Your task to perform on an android device: Clear the shopping cart on ebay.com. Search for razer deathadder on ebay.com, select the first entry, and add it to the cart. Image 0: 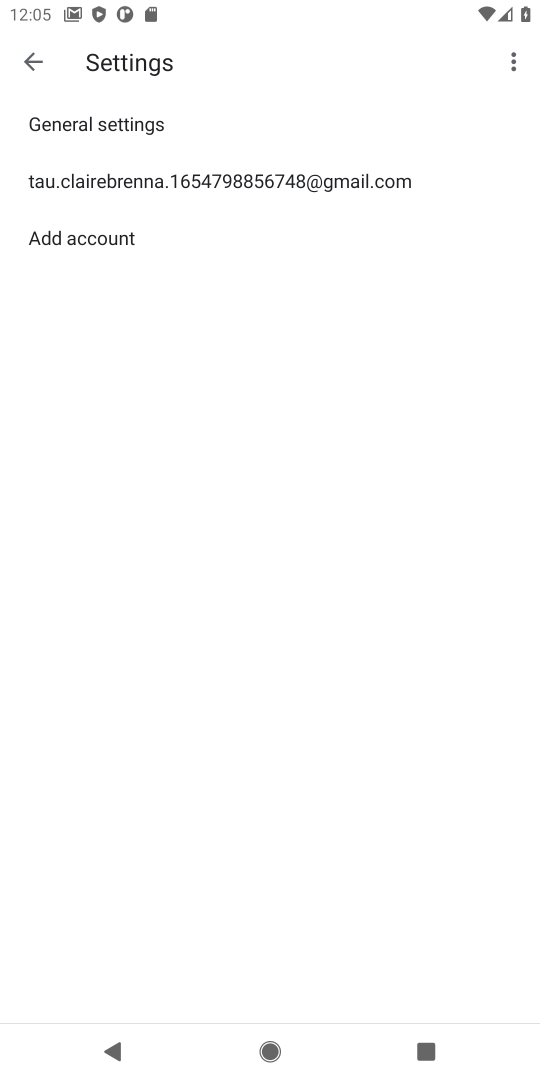
Step 0: press home button
Your task to perform on an android device: Clear the shopping cart on ebay.com. Search for razer deathadder on ebay.com, select the first entry, and add it to the cart. Image 1: 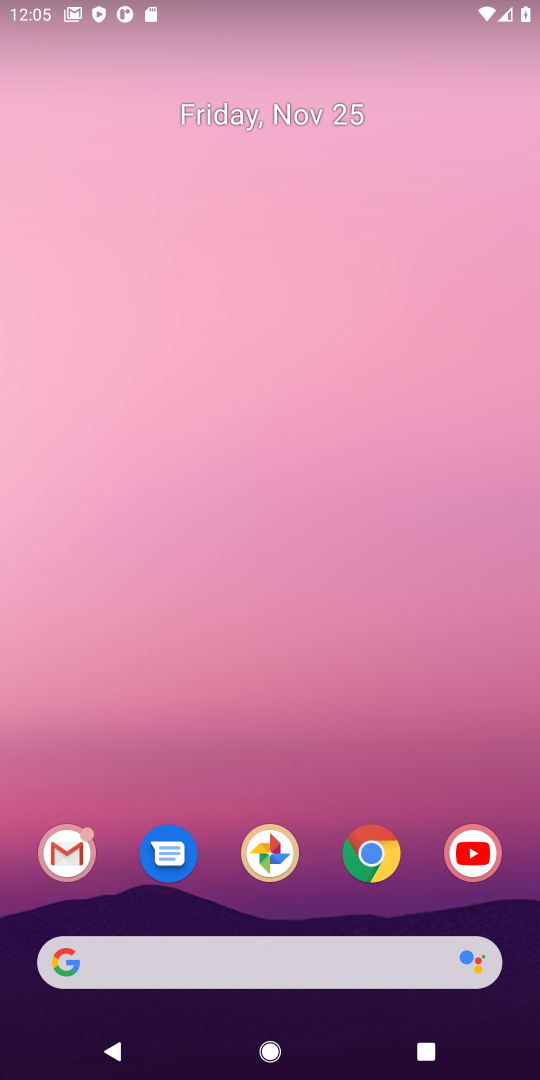
Step 1: click (333, 950)
Your task to perform on an android device: Clear the shopping cart on ebay.com. Search for razer deathadder on ebay.com, select the first entry, and add it to the cart. Image 2: 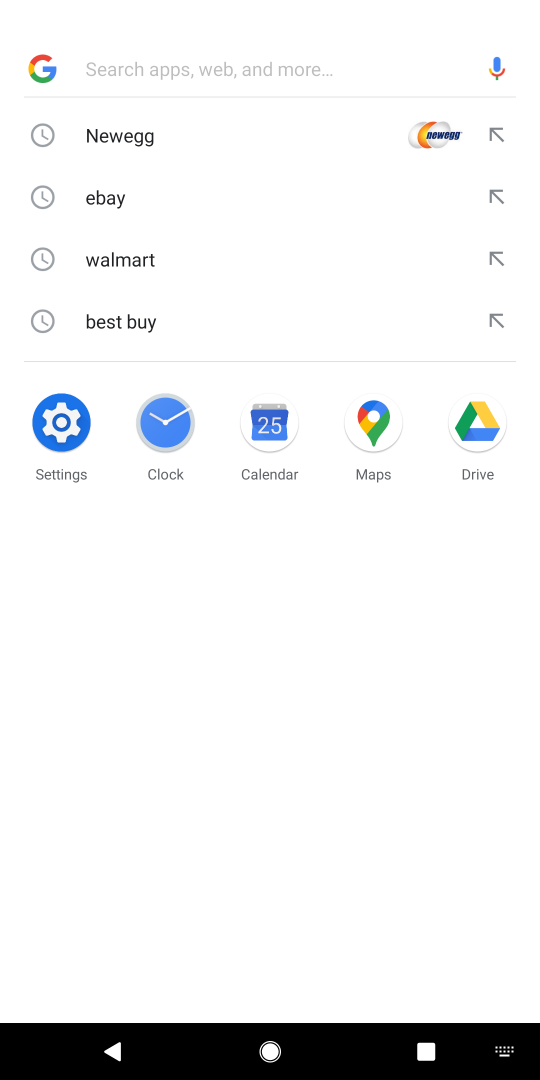
Step 2: click (183, 194)
Your task to perform on an android device: Clear the shopping cart on ebay.com. Search for razer deathadder on ebay.com, select the first entry, and add it to the cart. Image 3: 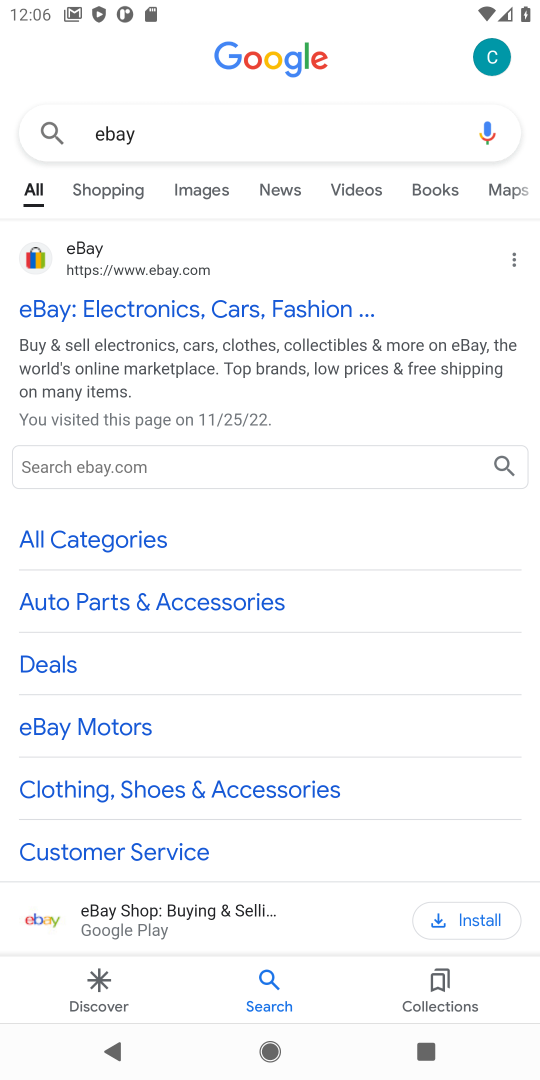
Step 3: click (216, 293)
Your task to perform on an android device: Clear the shopping cart on ebay.com. Search for razer deathadder on ebay.com, select the first entry, and add it to the cart. Image 4: 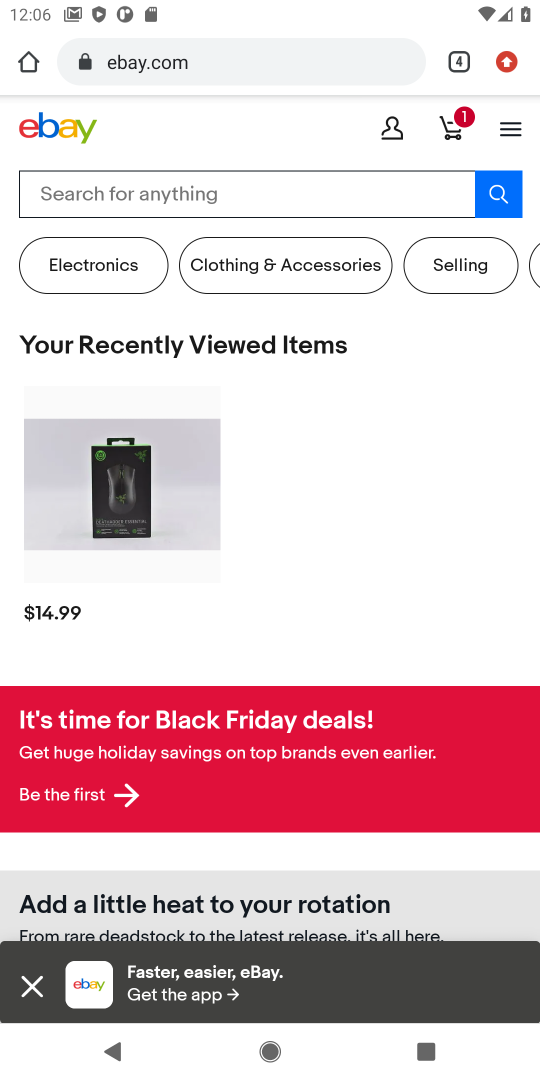
Step 4: click (36, 1001)
Your task to perform on an android device: Clear the shopping cart on ebay.com. Search for razer deathadder on ebay.com, select the first entry, and add it to the cart. Image 5: 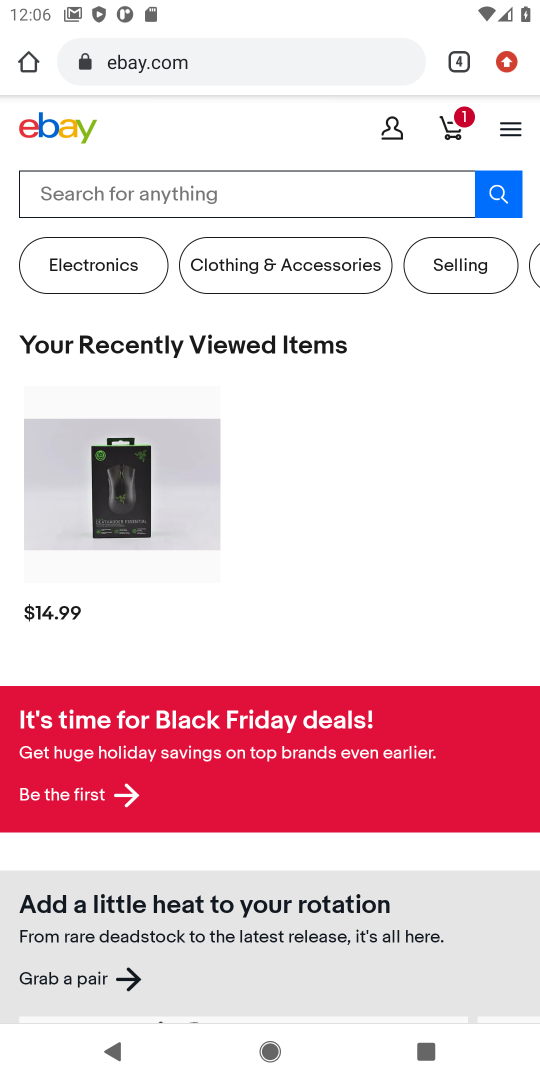
Step 5: type "razer deathadder"
Your task to perform on an android device: Clear the shopping cart on ebay.com. Search for razer deathadder on ebay.com, select the first entry, and add it to the cart. Image 6: 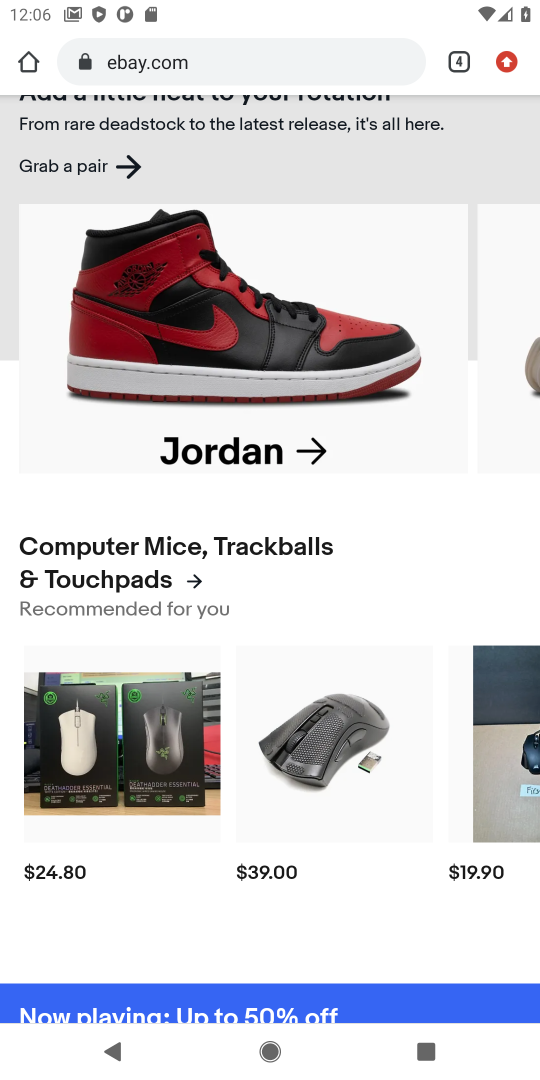
Step 6: task complete